Your task to perform on an android device: check android version Image 0: 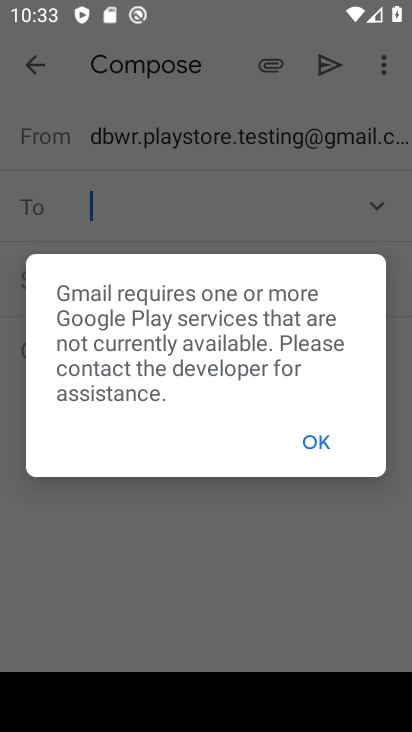
Step 0: press back button
Your task to perform on an android device: check android version Image 1: 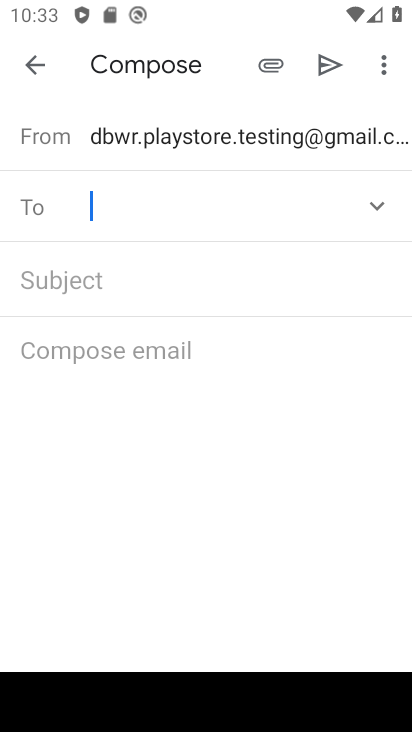
Step 1: click (35, 72)
Your task to perform on an android device: check android version Image 2: 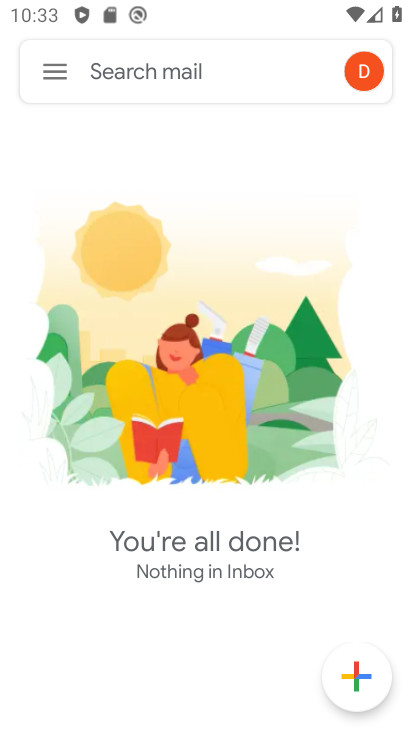
Step 2: press home button
Your task to perform on an android device: check android version Image 3: 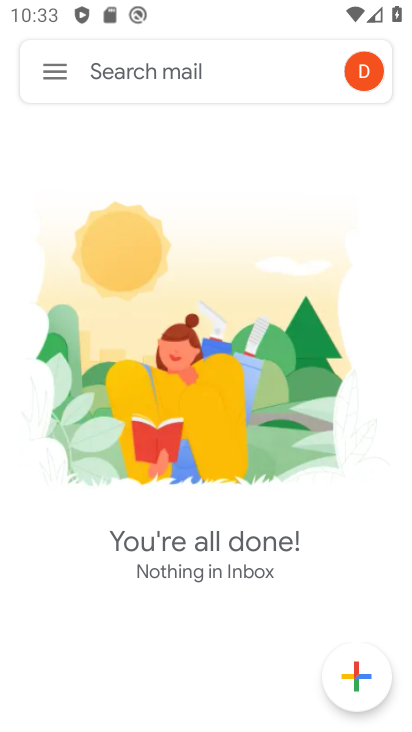
Step 3: press home button
Your task to perform on an android device: check android version Image 4: 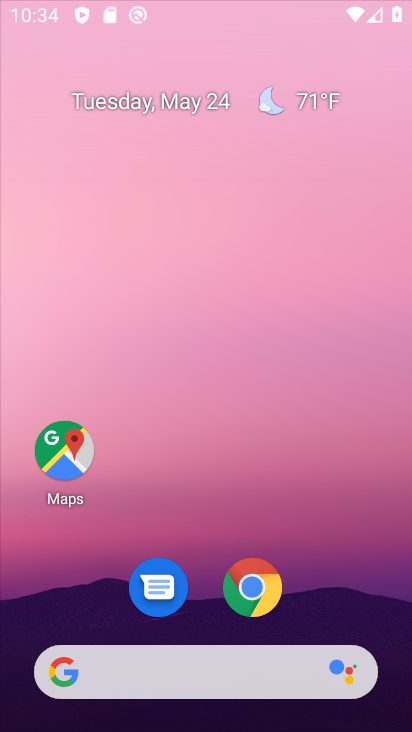
Step 4: press home button
Your task to perform on an android device: check android version Image 5: 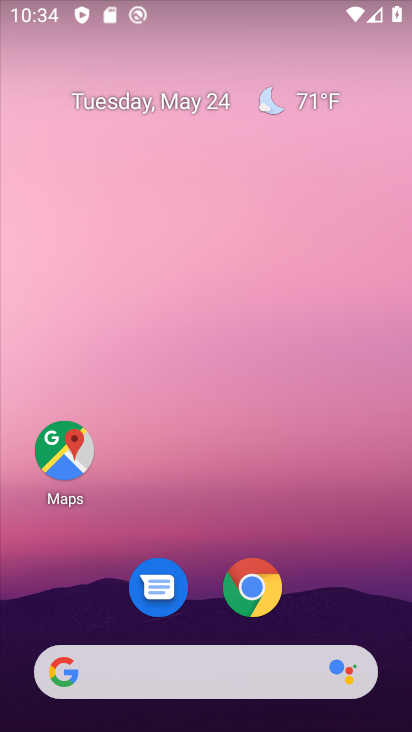
Step 5: drag from (343, 682) to (221, 122)
Your task to perform on an android device: check android version Image 6: 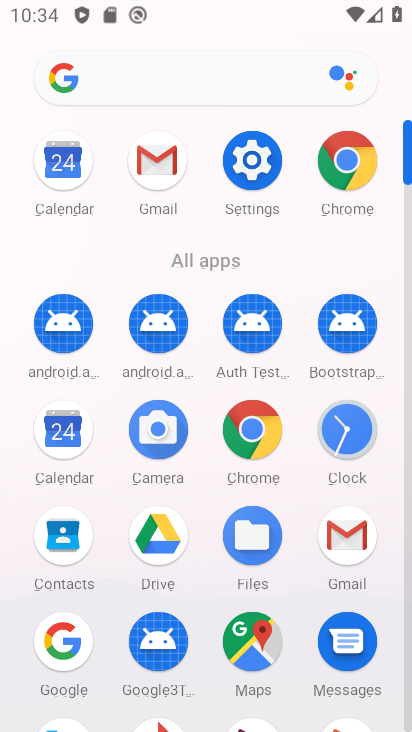
Step 6: click (243, 160)
Your task to perform on an android device: check android version Image 7: 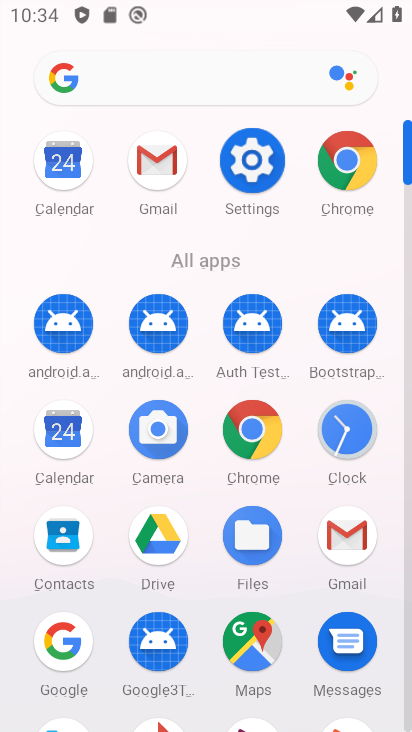
Step 7: click (241, 162)
Your task to perform on an android device: check android version Image 8: 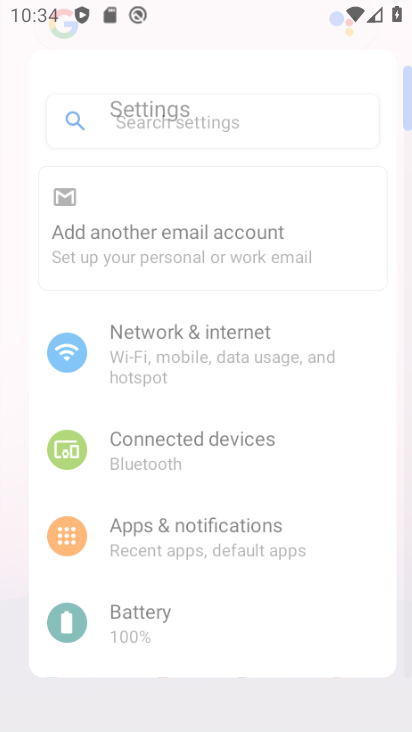
Step 8: click (241, 162)
Your task to perform on an android device: check android version Image 9: 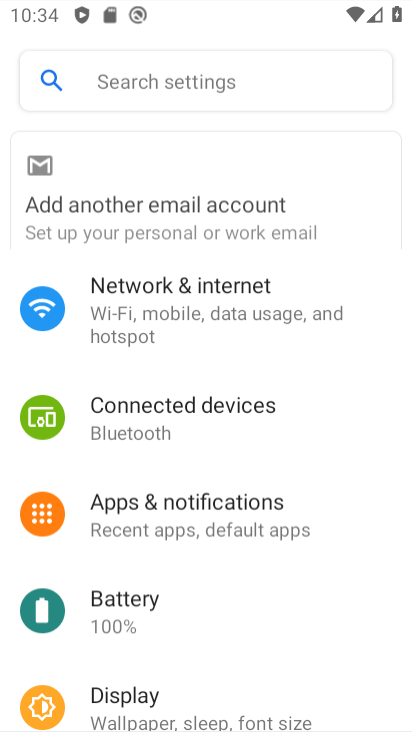
Step 9: click (240, 163)
Your task to perform on an android device: check android version Image 10: 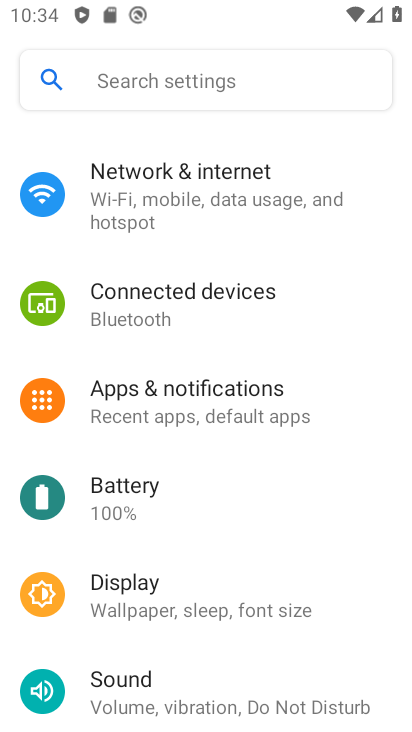
Step 10: click (240, 163)
Your task to perform on an android device: check android version Image 11: 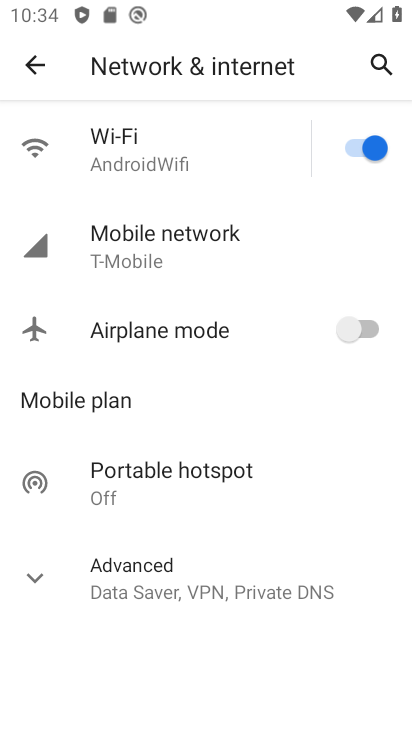
Step 11: drag from (223, 530) to (200, 215)
Your task to perform on an android device: check android version Image 12: 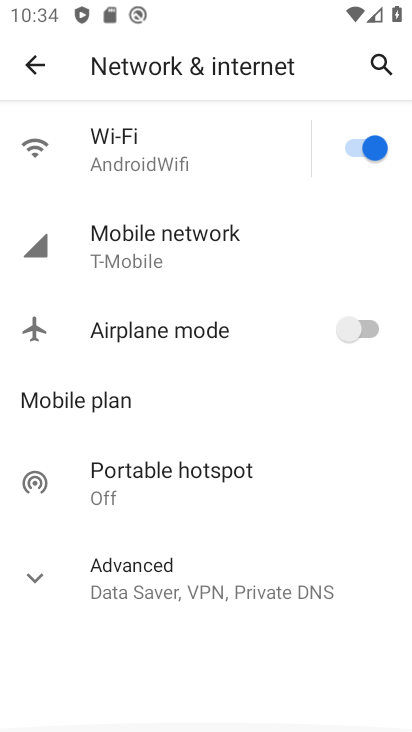
Step 12: click (33, 65)
Your task to perform on an android device: check android version Image 13: 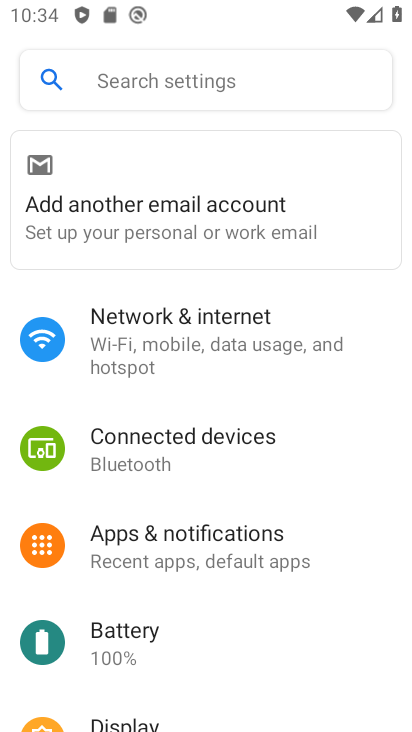
Step 13: drag from (247, 573) to (218, 196)
Your task to perform on an android device: check android version Image 14: 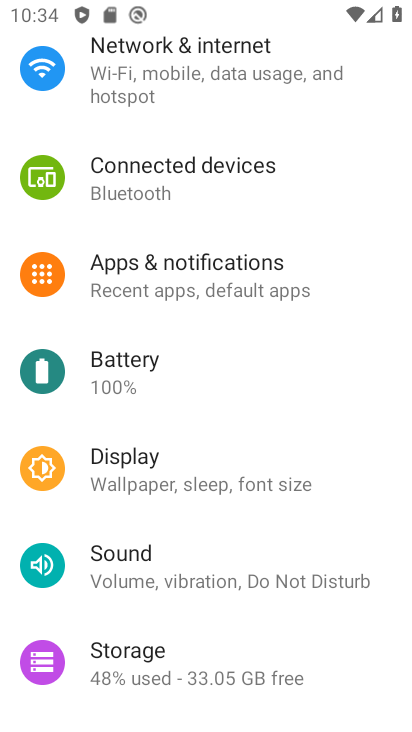
Step 14: drag from (233, 509) to (230, 84)
Your task to perform on an android device: check android version Image 15: 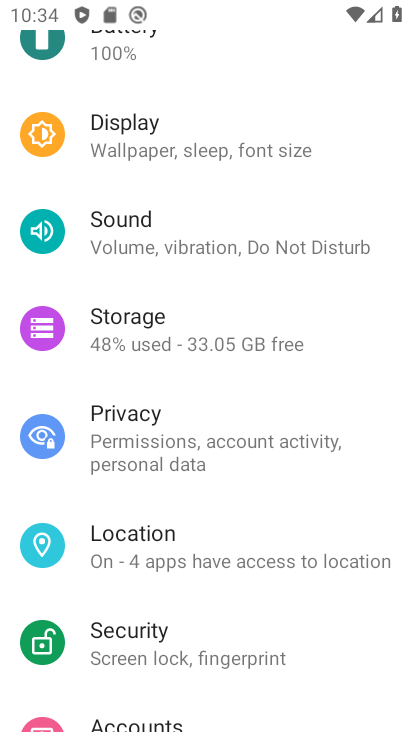
Step 15: drag from (226, 505) to (224, 134)
Your task to perform on an android device: check android version Image 16: 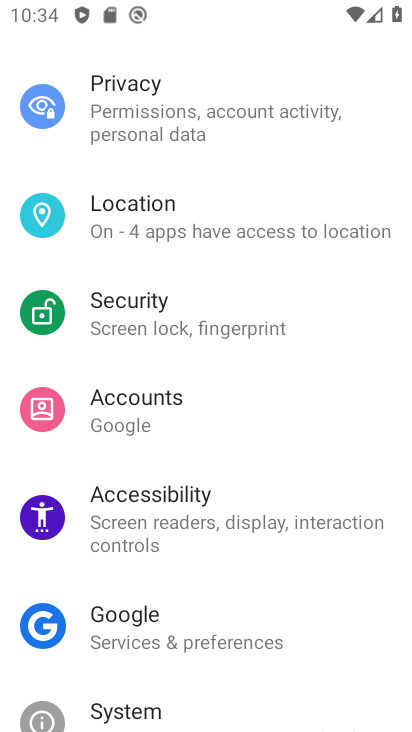
Step 16: drag from (246, 533) to (246, 110)
Your task to perform on an android device: check android version Image 17: 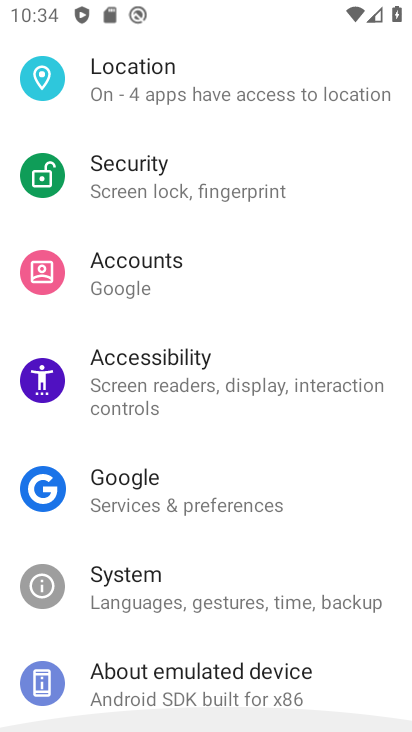
Step 17: drag from (241, 465) to (259, 25)
Your task to perform on an android device: check android version Image 18: 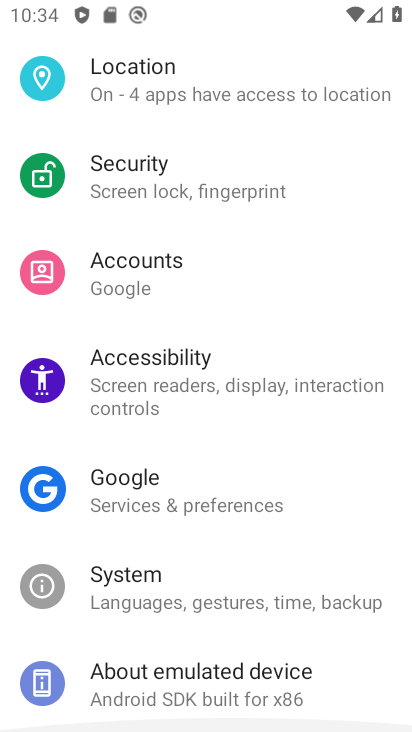
Step 18: drag from (213, 464) to (184, 225)
Your task to perform on an android device: check android version Image 19: 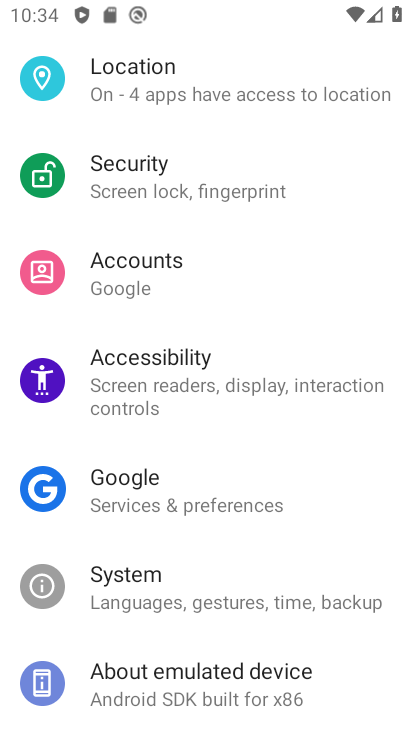
Step 19: click (198, 681)
Your task to perform on an android device: check android version Image 20: 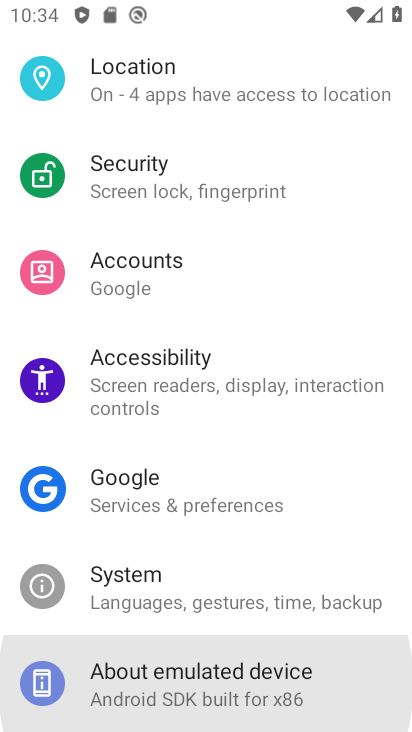
Step 20: click (198, 681)
Your task to perform on an android device: check android version Image 21: 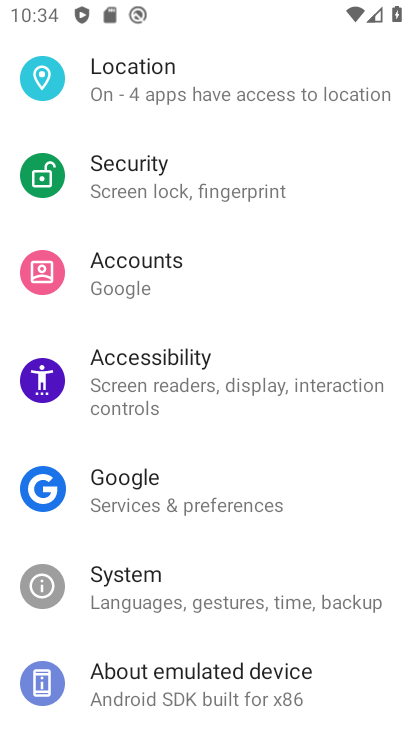
Step 21: click (197, 680)
Your task to perform on an android device: check android version Image 22: 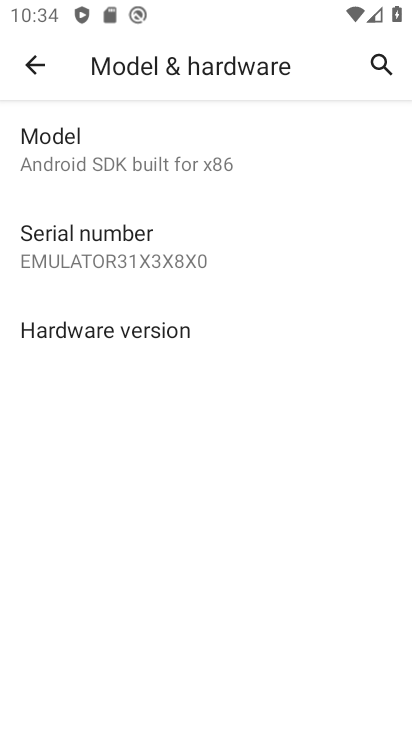
Step 22: click (30, 62)
Your task to perform on an android device: check android version Image 23: 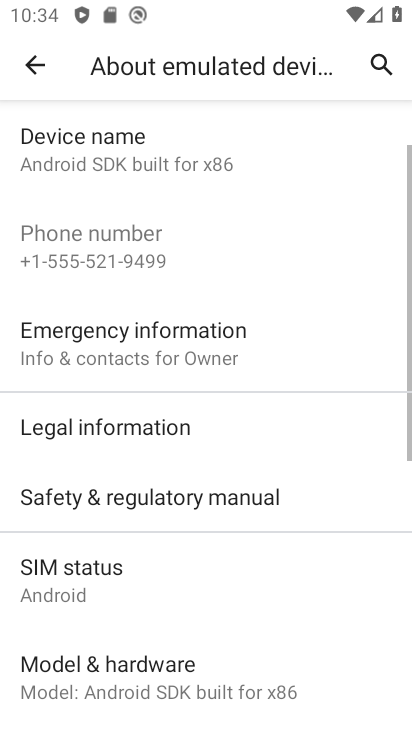
Step 23: drag from (170, 518) to (186, 220)
Your task to perform on an android device: check android version Image 24: 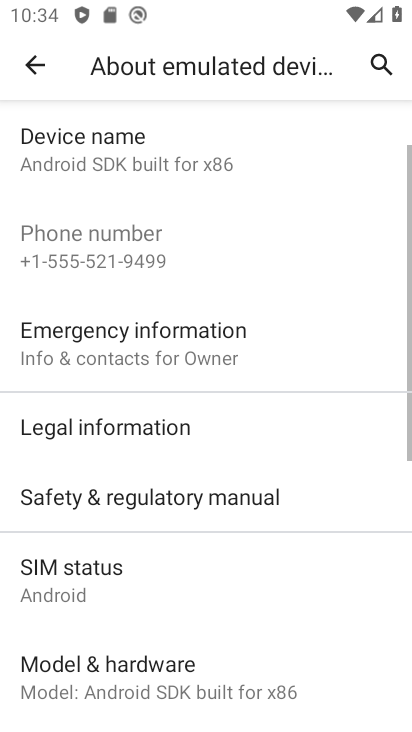
Step 24: drag from (240, 525) to (323, 177)
Your task to perform on an android device: check android version Image 25: 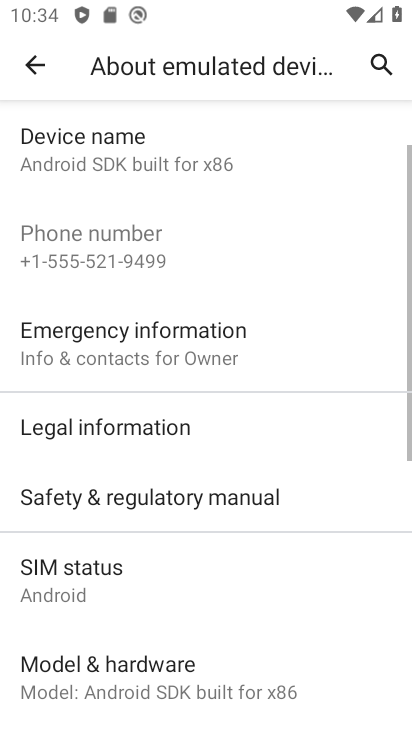
Step 25: drag from (249, 463) to (249, 218)
Your task to perform on an android device: check android version Image 26: 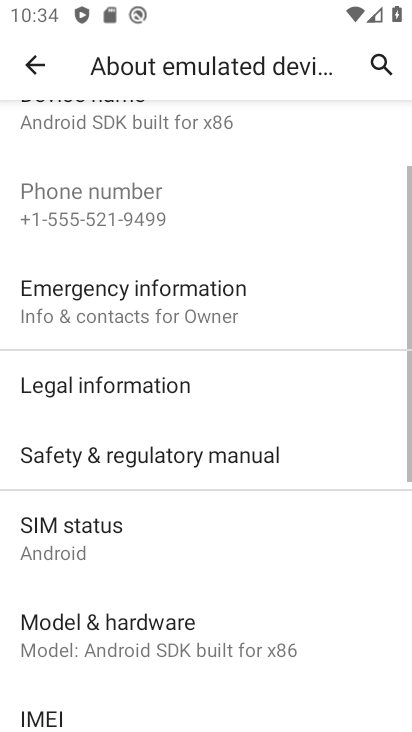
Step 26: drag from (221, 439) to (225, 49)
Your task to perform on an android device: check android version Image 27: 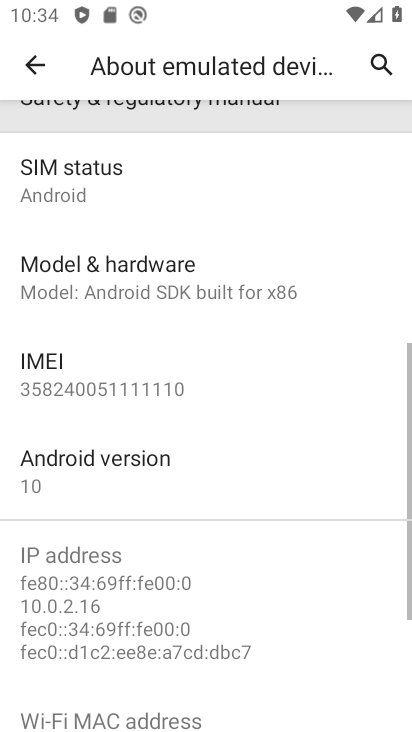
Step 27: drag from (212, 460) to (269, 13)
Your task to perform on an android device: check android version Image 28: 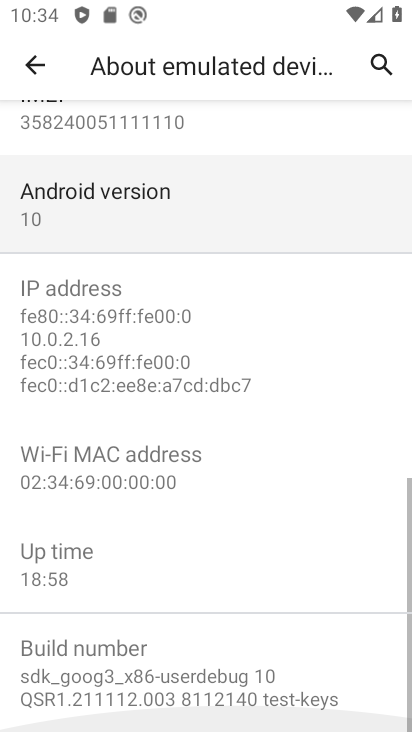
Step 28: drag from (224, 549) to (281, 105)
Your task to perform on an android device: check android version Image 29: 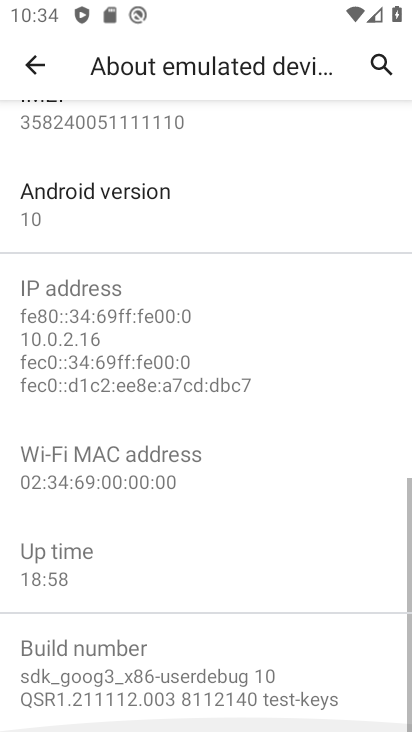
Step 29: drag from (224, 445) to (242, 128)
Your task to perform on an android device: check android version Image 30: 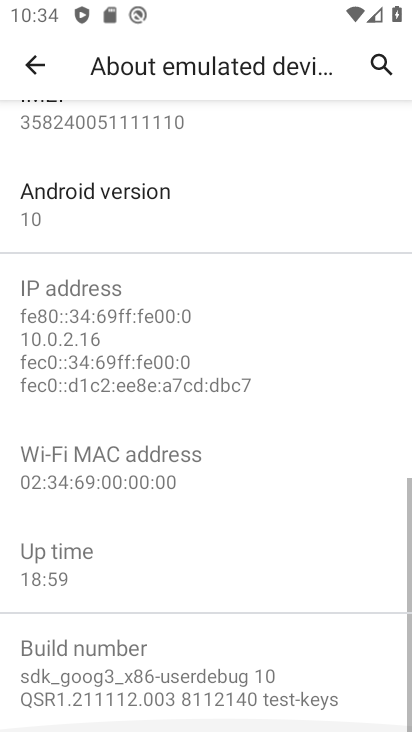
Step 30: click (228, 98)
Your task to perform on an android device: check android version Image 31: 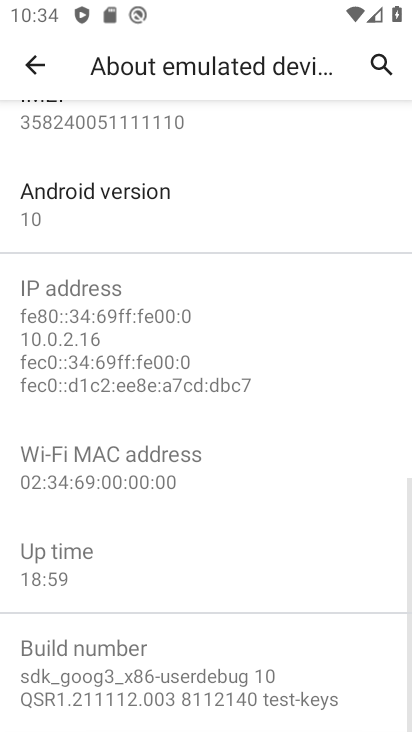
Step 31: task complete